Your task to perform on an android device: Open the stopwatch Image 0: 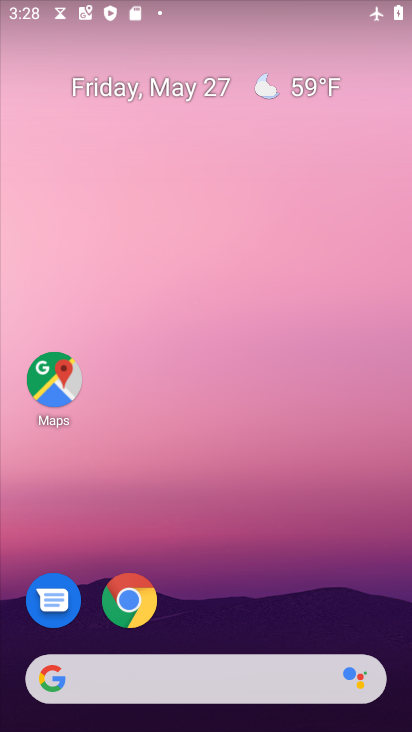
Step 0: drag from (231, 579) to (193, 53)
Your task to perform on an android device: Open the stopwatch Image 1: 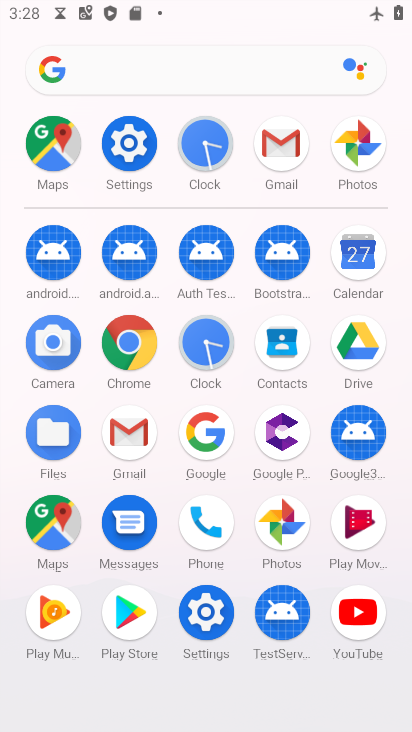
Step 1: click (201, 145)
Your task to perform on an android device: Open the stopwatch Image 2: 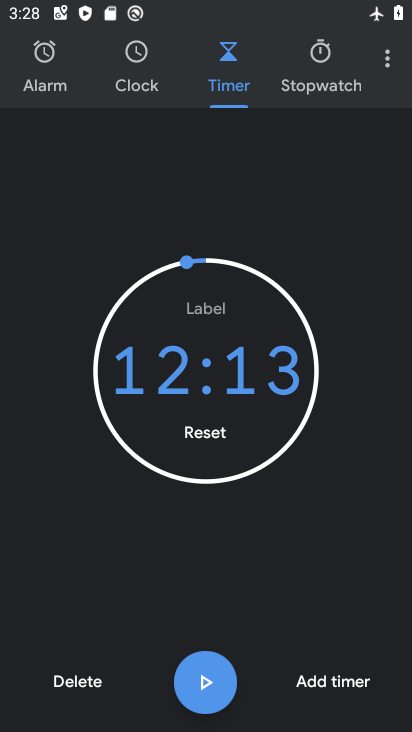
Step 2: click (324, 54)
Your task to perform on an android device: Open the stopwatch Image 3: 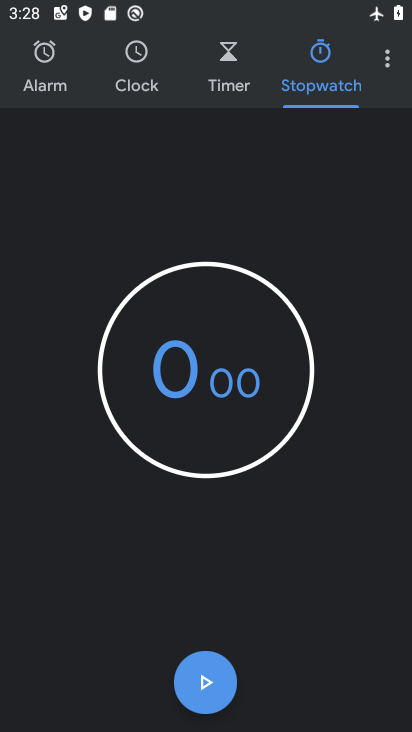
Step 3: task complete